Your task to perform on an android device: Go to Maps Image 0: 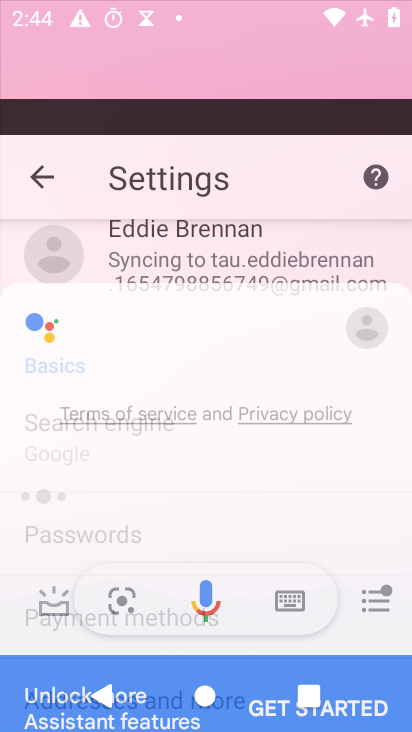
Step 0: press home button
Your task to perform on an android device: Go to Maps Image 1: 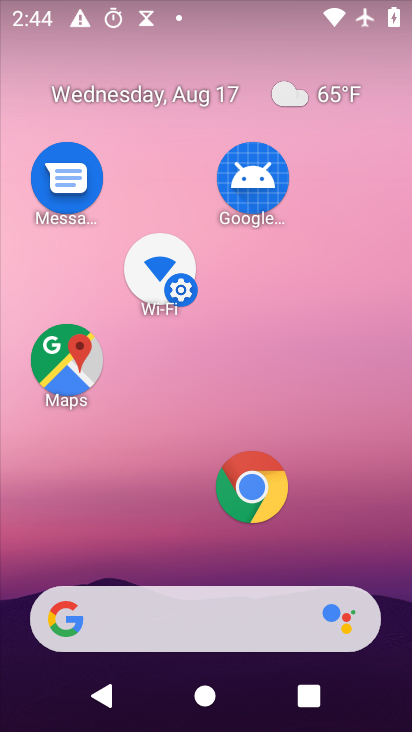
Step 1: click (44, 384)
Your task to perform on an android device: Go to Maps Image 2: 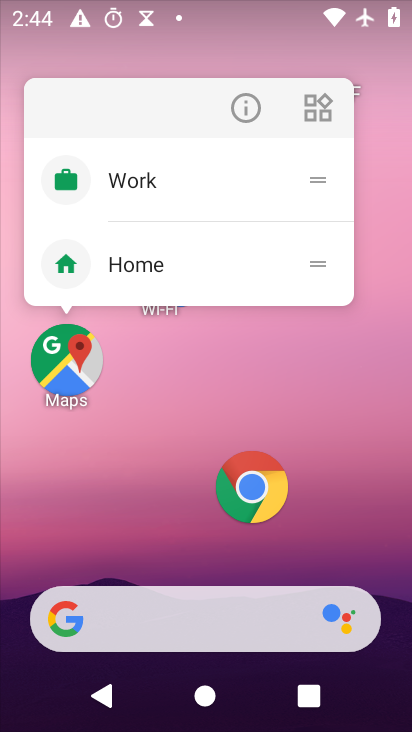
Step 2: click (64, 382)
Your task to perform on an android device: Go to Maps Image 3: 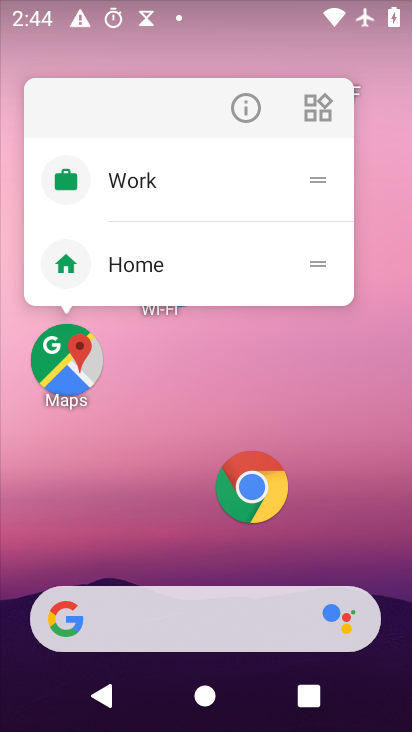
Step 3: click (64, 382)
Your task to perform on an android device: Go to Maps Image 4: 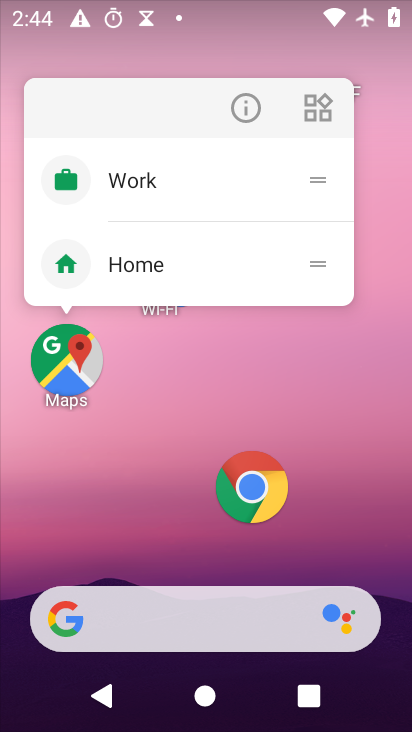
Step 4: click (64, 382)
Your task to perform on an android device: Go to Maps Image 5: 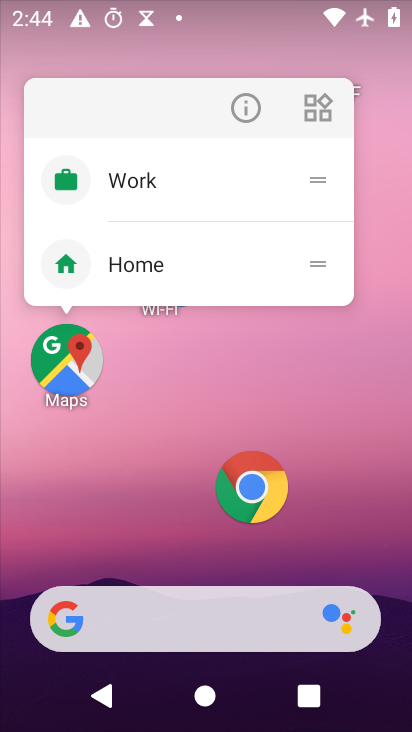
Step 5: click (64, 374)
Your task to perform on an android device: Go to Maps Image 6: 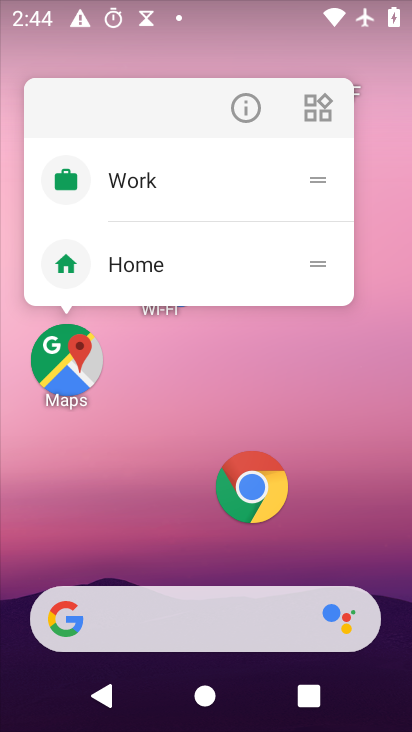
Step 6: click (64, 374)
Your task to perform on an android device: Go to Maps Image 7: 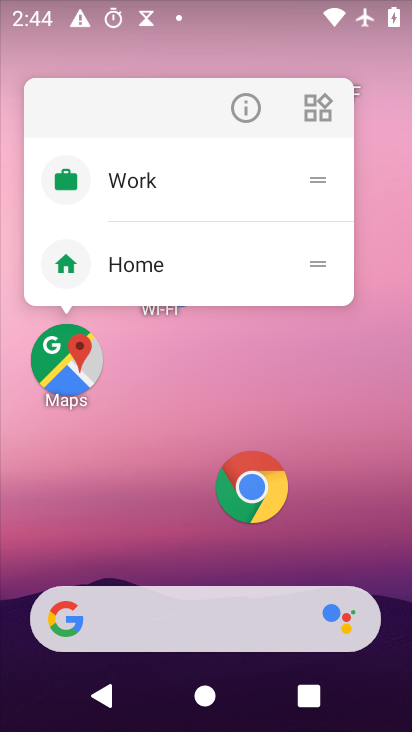
Step 7: click (64, 374)
Your task to perform on an android device: Go to Maps Image 8: 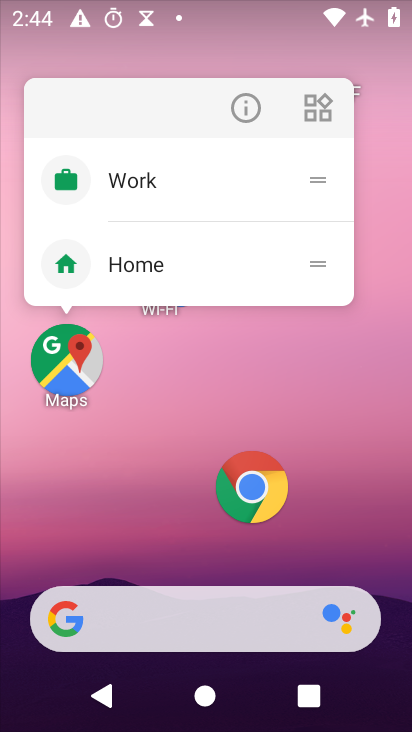
Step 8: click (64, 374)
Your task to perform on an android device: Go to Maps Image 9: 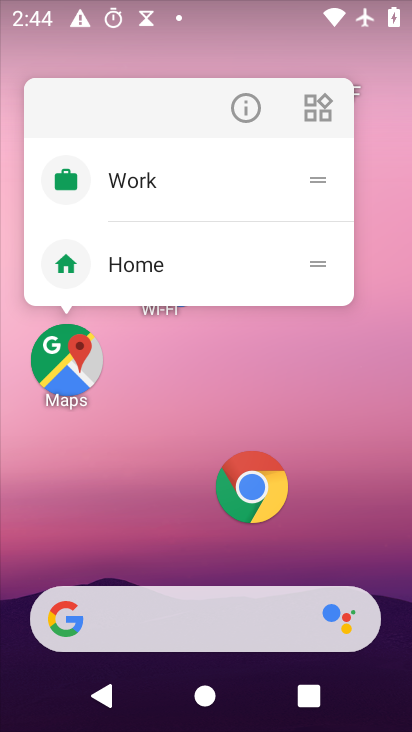
Step 9: click (64, 374)
Your task to perform on an android device: Go to Maps Image 10: 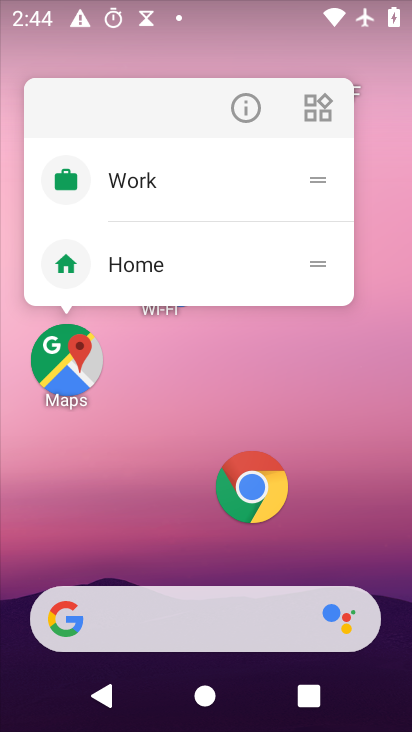
Step 10: click (64, 374)
Your task to perform on an android device: Go to Maps Image 11: 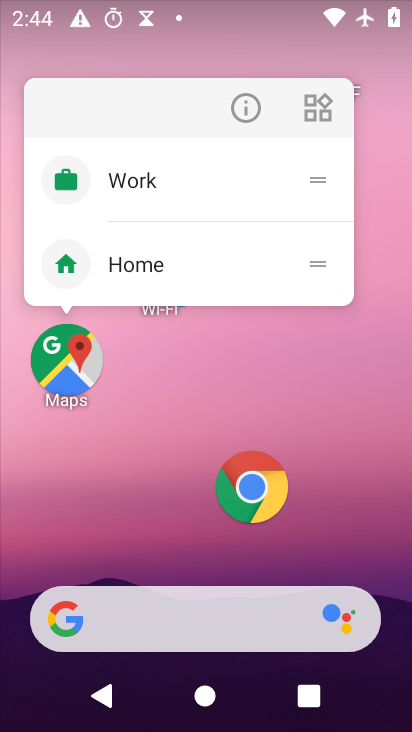
Step 11: click (64, 374)
Your task to perform on an android device: Go to Maps Image 12: 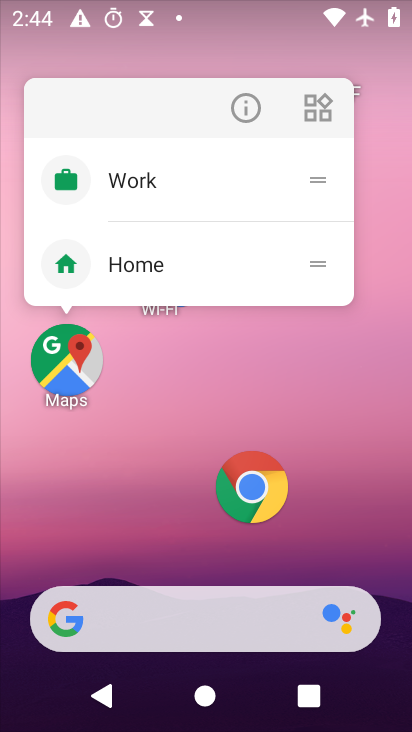
Step 12: click (64, 374)
Your task to perform on an android device: Go to Maps Image 13: 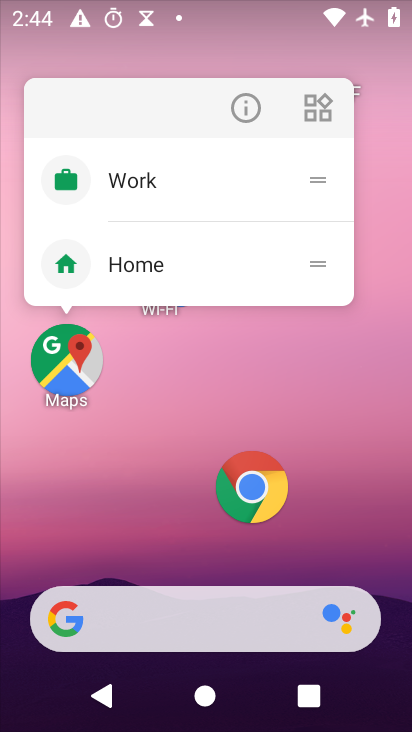
Step 13: click (64, 374)
Your task to perform on an android device: Go to Maps Image 14: 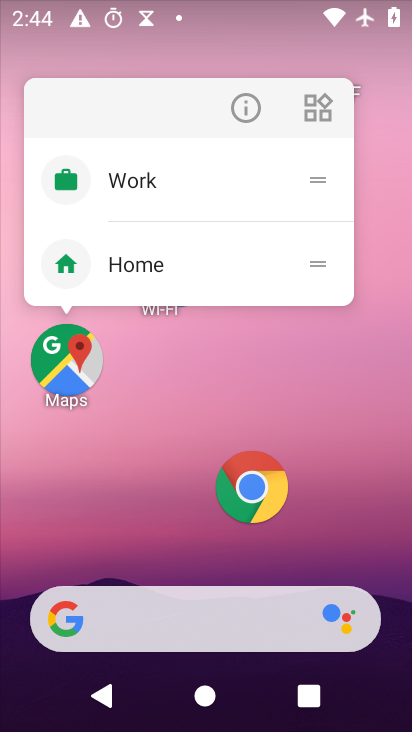
Step 14: click (39, 353)
Your task to perform on an android device: Go to Maps Image 15: 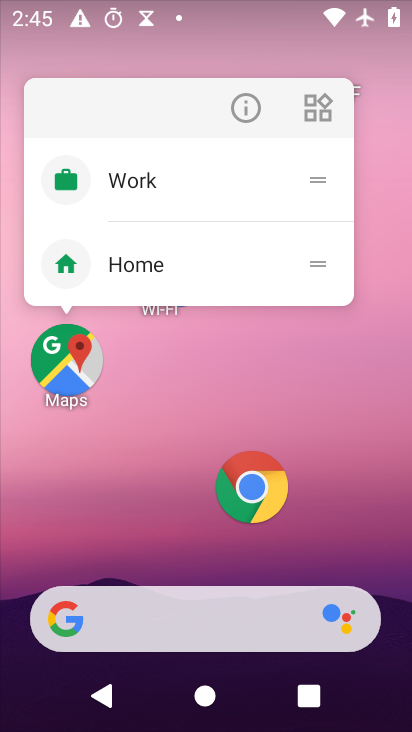
Step 15: click (39, 353)
Your task to perform on an android device: Go to Maps Image 16: 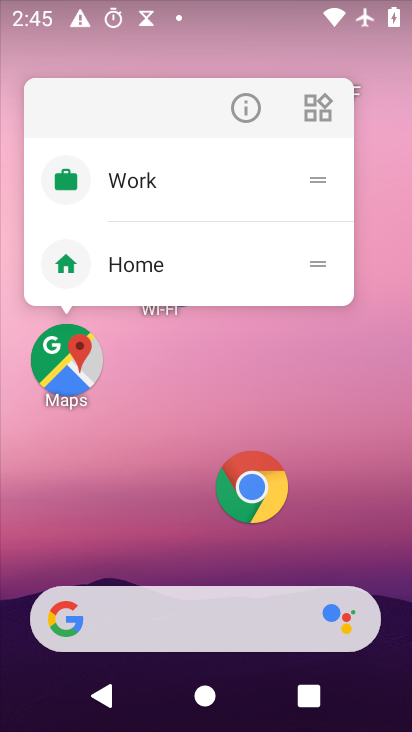
Step 16: click (60, 370)
Your task to perform on an android device: Go to Maps Image 17: 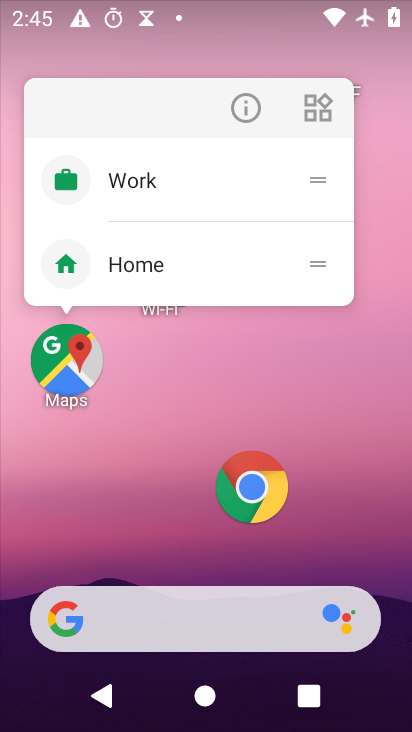
Step 17: click (60, 370)
Your task to perform on an android device: Go to Maps Image 18: 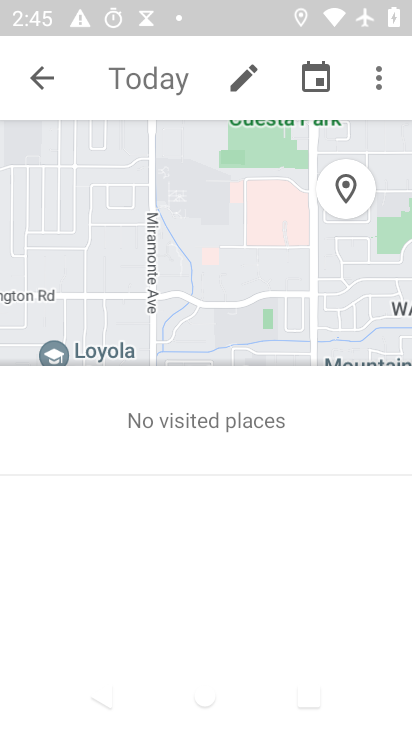
Step 18: task complete